Your task to perform on an android device: What's the weather going to be tomorrow? Image 0: 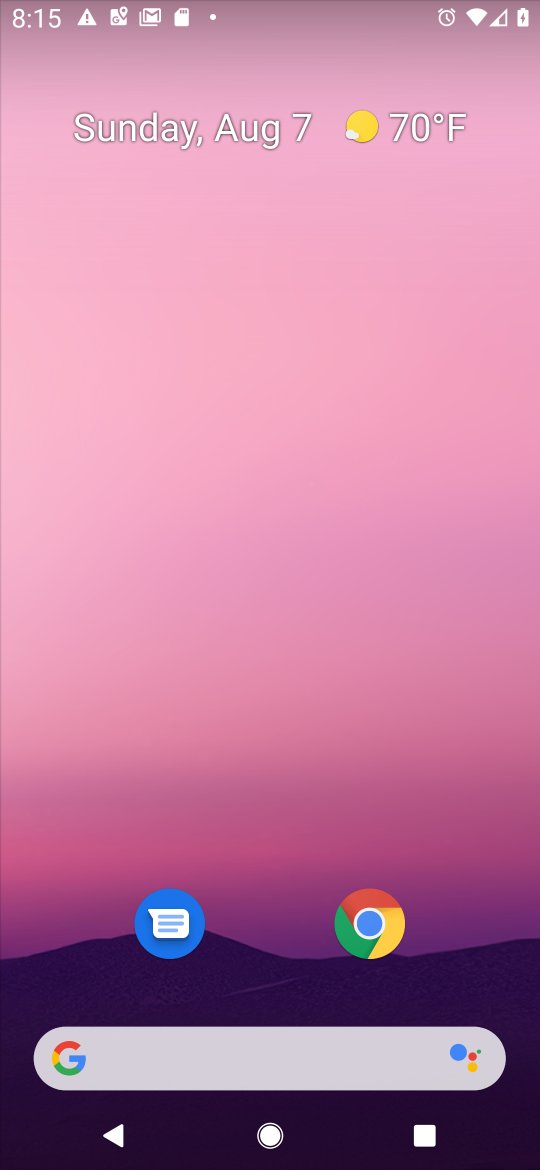
Step 0: drag from (438, 784) to (372, 83)
Your task to perform on an android device: What's the weather going to be tomorrow? Image 1: 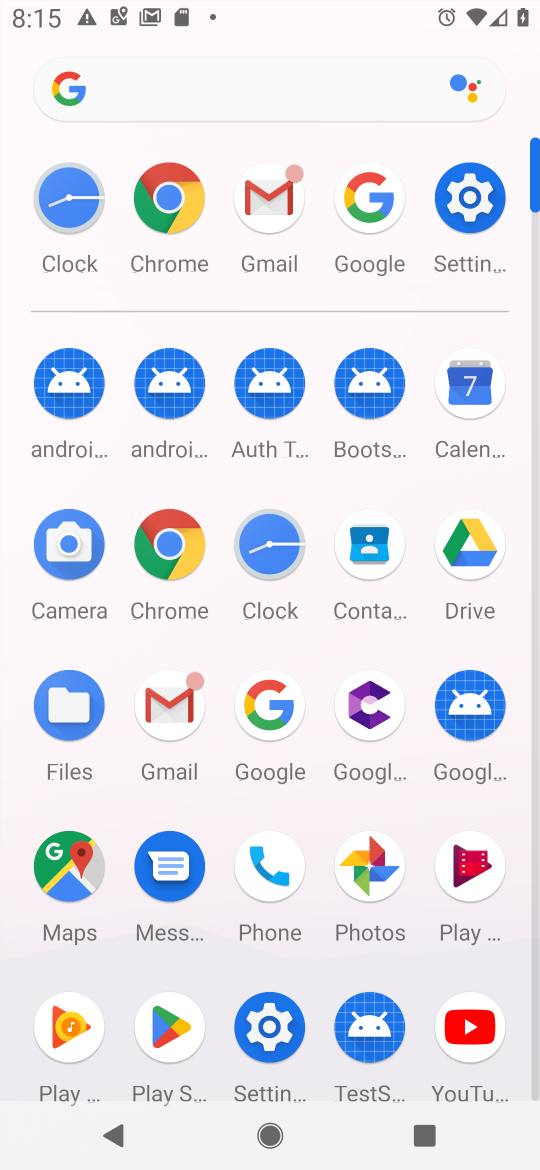
Step 1: click (277, 703)
Your task to perform on an android device: What's the weather going to be tomorrow? Image 2: 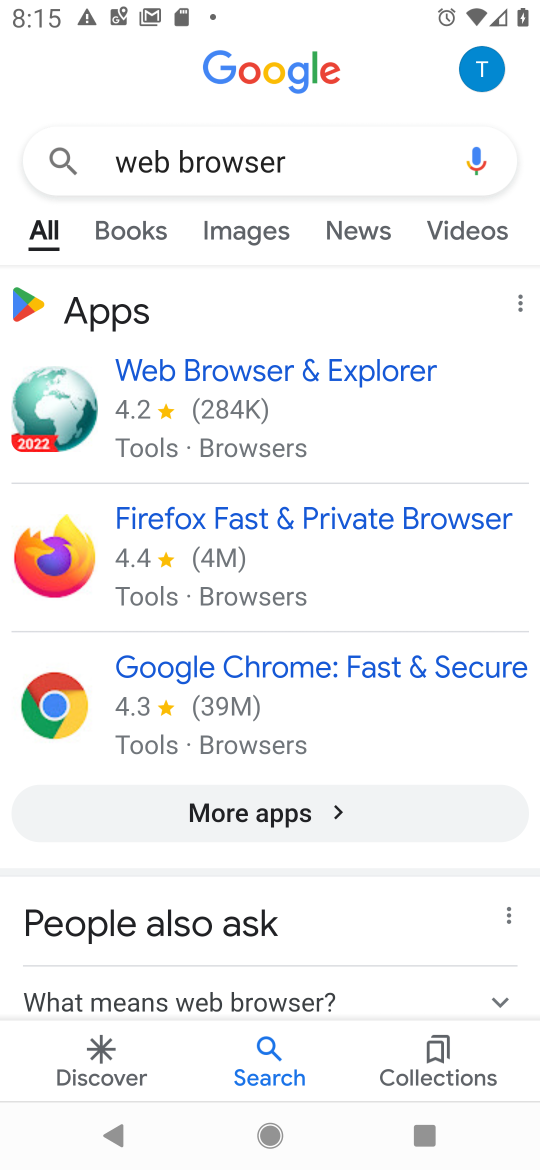
Step 2: press back button
Your task to perform on an android device: What's the weather going to be tomorrow? Image 3: 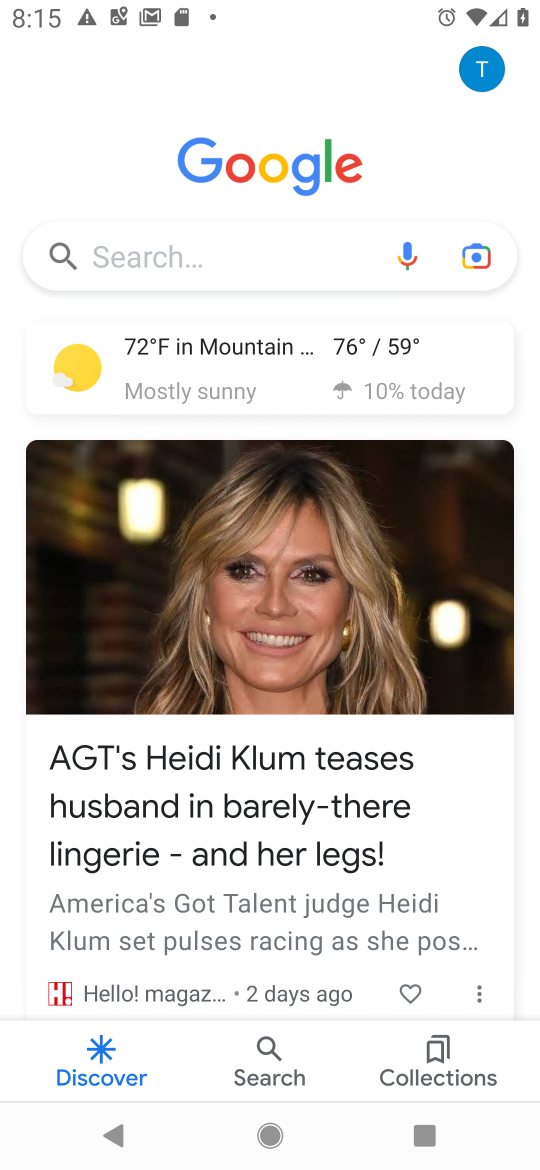
Step 3: click (184, 233)
Your task to perform on an android device: What's the weather going to be tomorrow? Image 4: 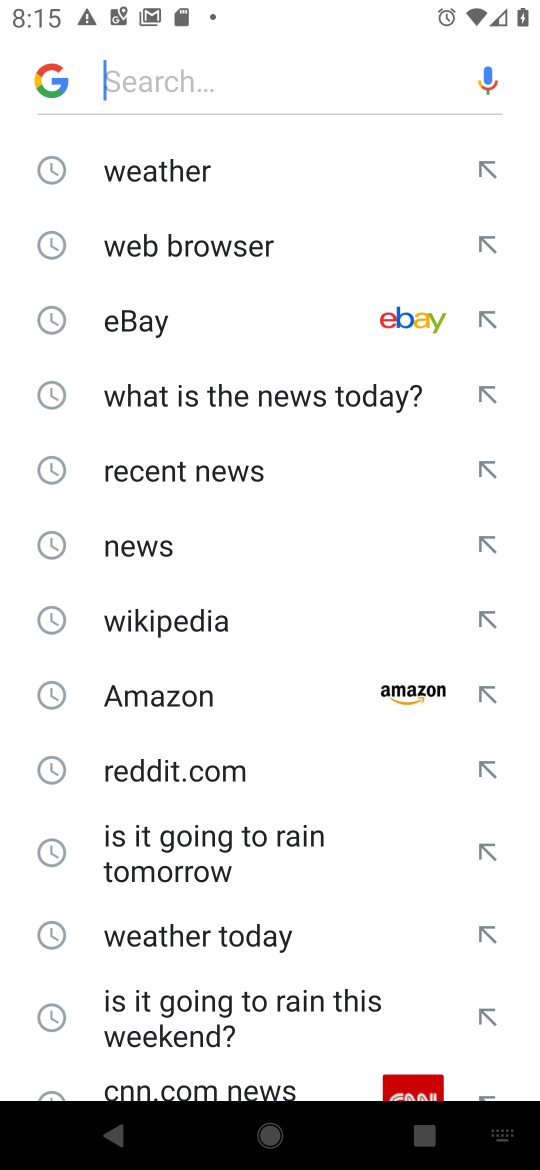
Step 4: type "What's the weather going to be tomorrow?"
Your task to perform on an android device: What's the weather going to be tomorrow? Image 5: 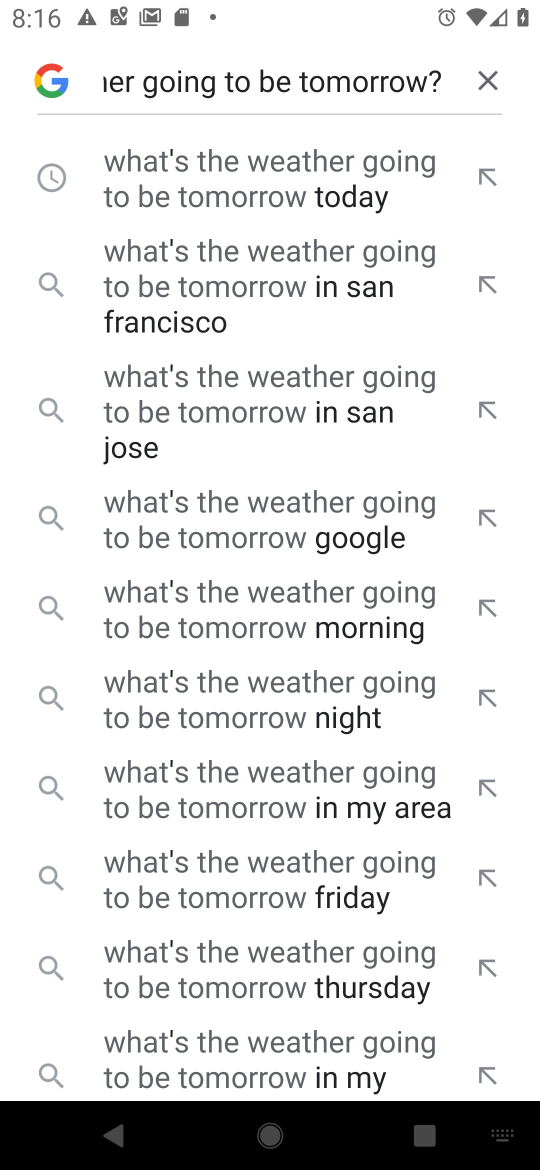
Step 5: task complete